Your task to perform on an android device: Open Youtube and go to the subscriptions tab Image 0: 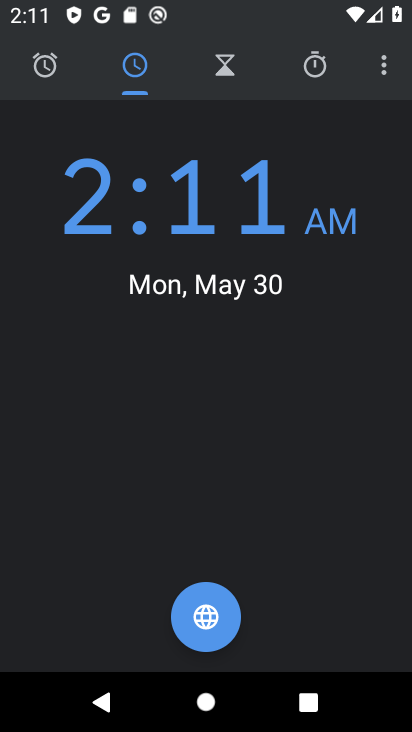
Step 0: press home button
Your task to perform on an android device: Open Youtube and go to the subscriptions tab Image 1: 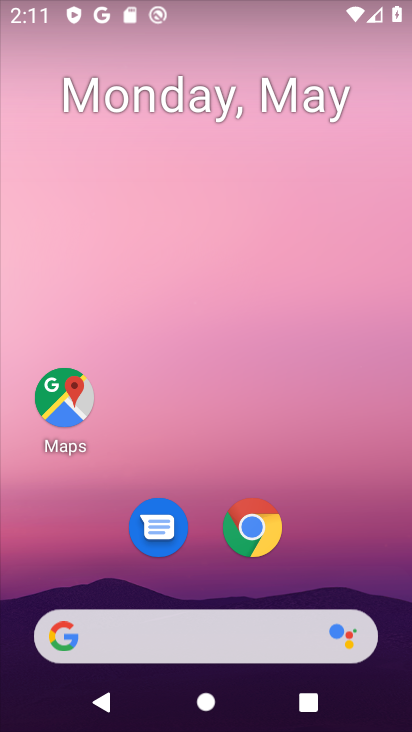
Step 1: drag from (185, 561) to (355, 128)
Your task to perform on an android device: Open Youtube and go to the subscriptions tab Image 2: 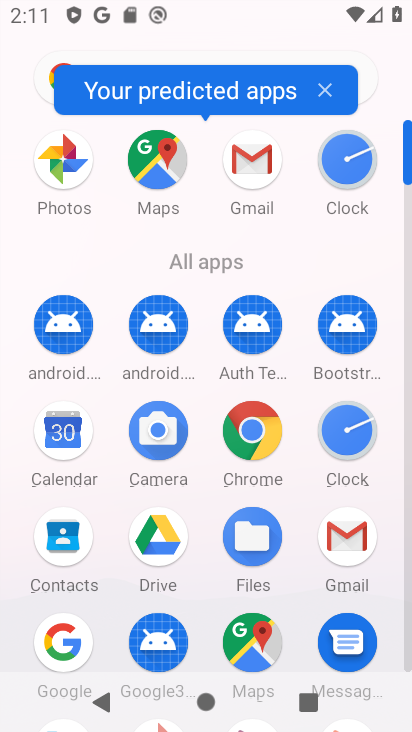
Step 2: drag from (314, 398) to (314, 230)
Your task to perform on an android device: Open Youtube and go to the subscriptions tab Image 3: 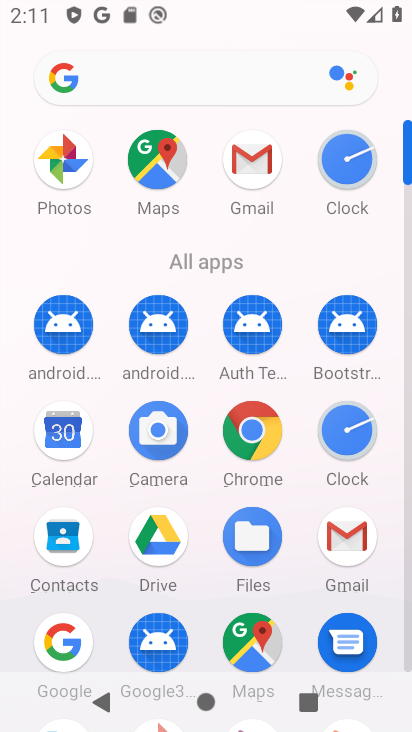
Step 3: drag from (289, 620) to (285, 345)
Your task to perform on an android device: Open Youtube and go to the subscriptions tab Image 4: 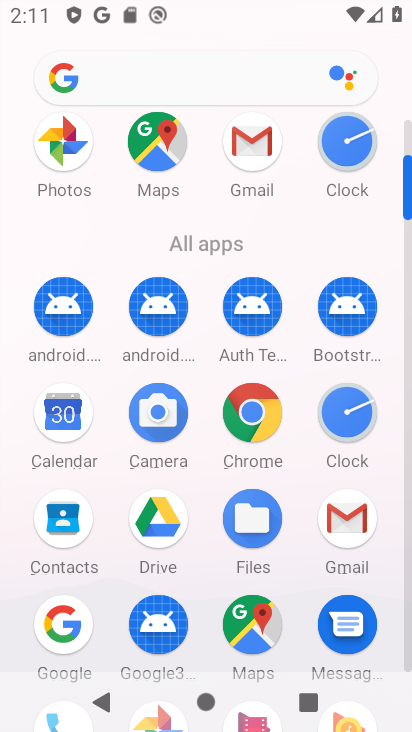
Step 4: drag from (274, 658) to (294, 421)
Your task to perform on an android device: Open Youtube and go to the subscriptions tab Image 5: 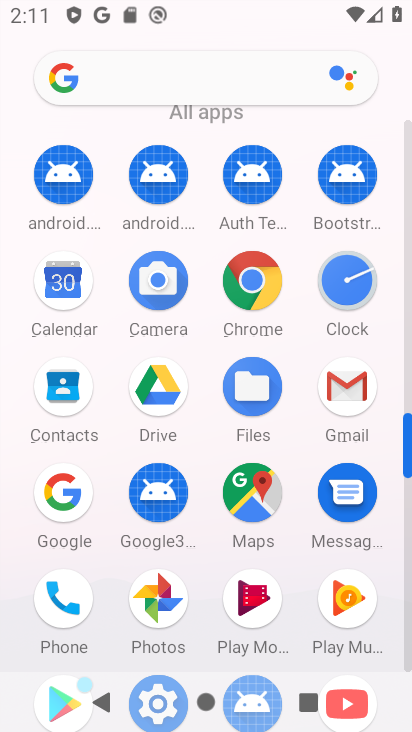
Step 5: drag from (301, 612) to (301, 408)
Your task to perform on an android device: Open Youtube and go to the subscriptions tab Image 6: 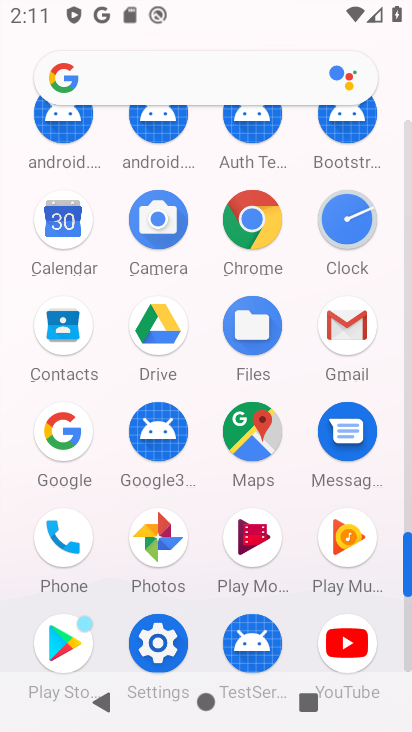
Step 6: click (354, 641)
Your task to perform on an android device: Open Youtube and go to the subscriptions tab Image 7: 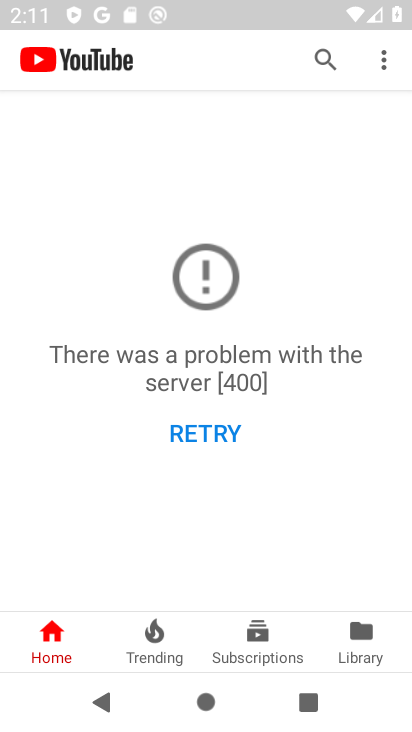
Step 7: click (274, 643)
Your task to perform on an android device: Open Youtube and go to the subscriptions tab Image 8: 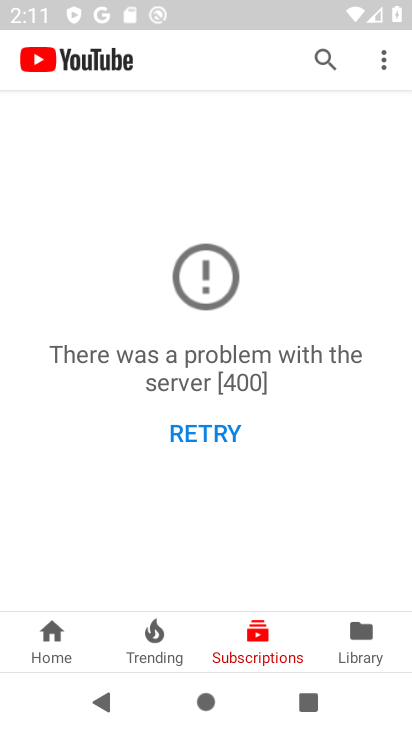
Step 8: task complete